Your task to perform on an android device: turn off notifications in google photos Image 0: 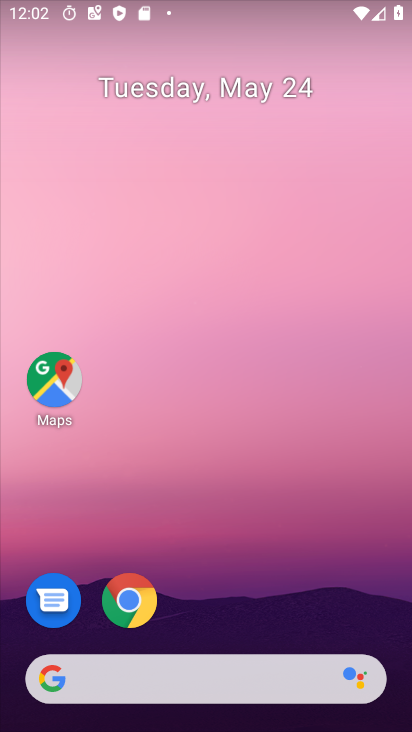
Step 0: drag from (255, 523) to (296, 97)
Your task to perform on an android device: turn off notifications in google photos Image 1: 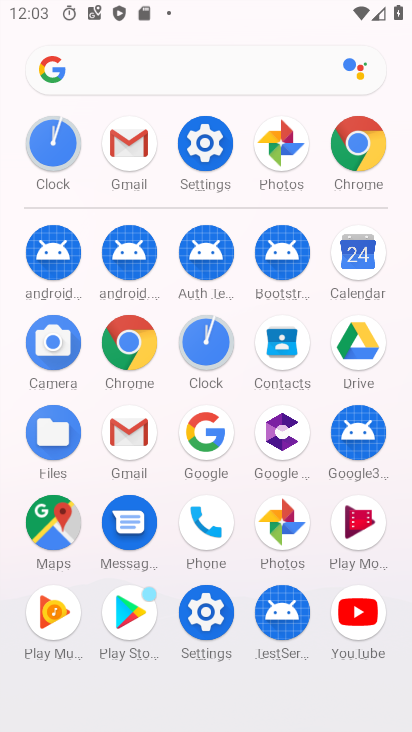
Step 1: click (274, 523)
Your task to perform on an android device: turn off notifications in google photos Image 2: 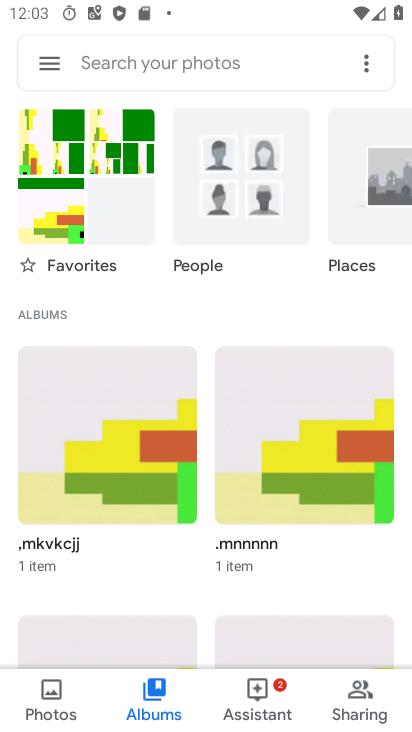
Step 2: click (52, 60)
Your task to perform on an android device: turn off notifications in google photos Image 3: 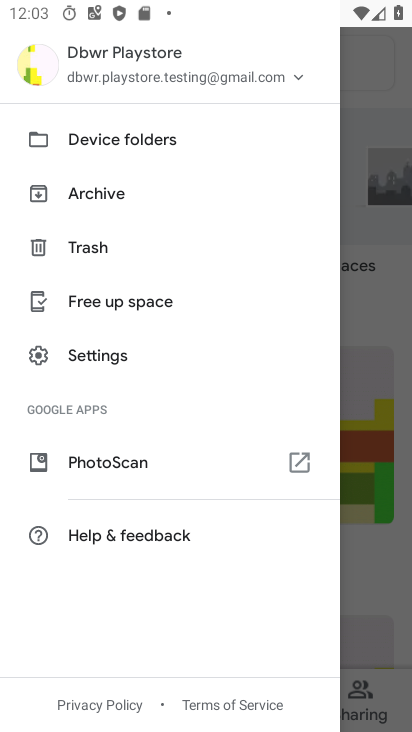
Step 3: click (96, 365)
Your task to perform on an android device: turn off notifications in google photos Image 4: 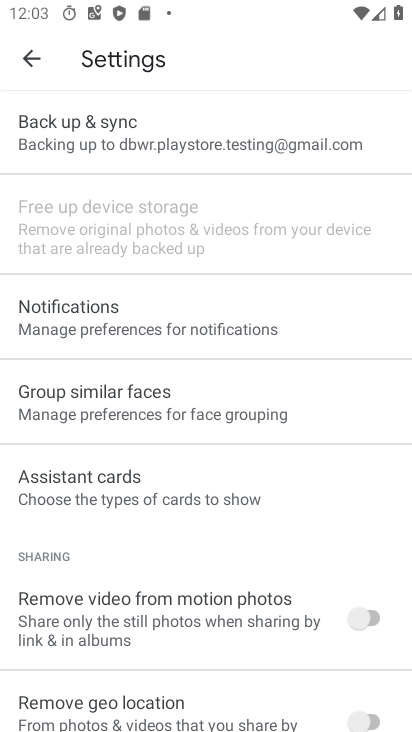
Step 4: drag from (209, 485) to (262, 218)
Your task to perform on an android device: turn off notifications in google photos Image 5: 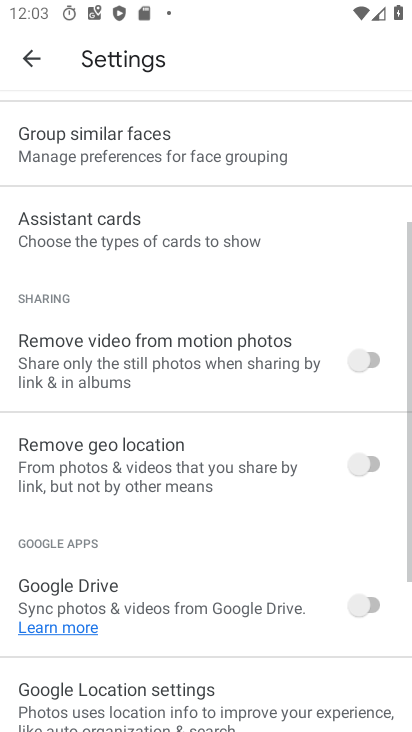
Step 5: drag from (257, 205) to (229, 552)
Your task to perform on an android device: turn off notifications in google photos Image 6: 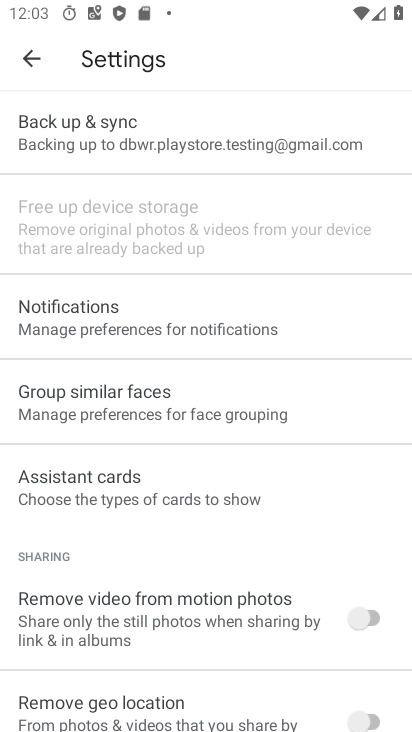
Step 6: click (180, 336)
Your task to perform on an android device: turn off notifications in google photos Image 7: 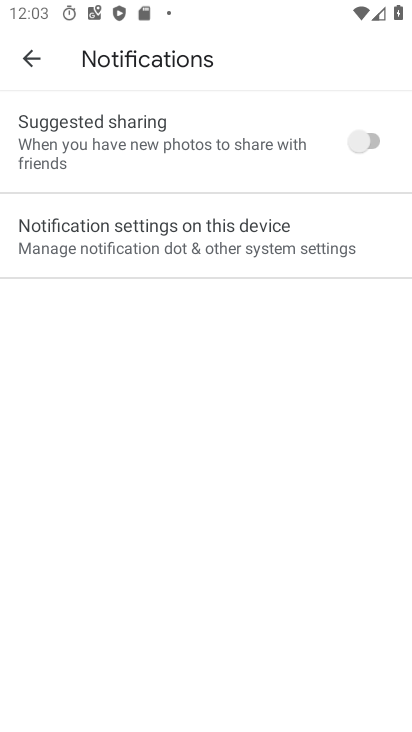
Step 7: click (214, 240)
Your task to perform on an android device: turn off notifications in google photos Image 8: 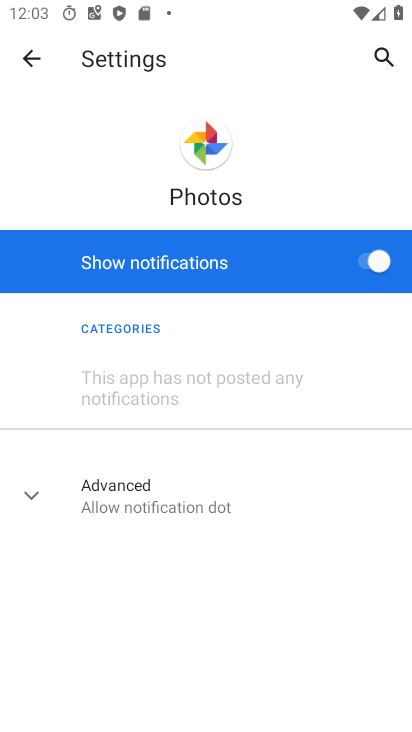
Step 8: click (352, 257)
Your task to perform on an android device: turn off notifications in google photos Image 9: 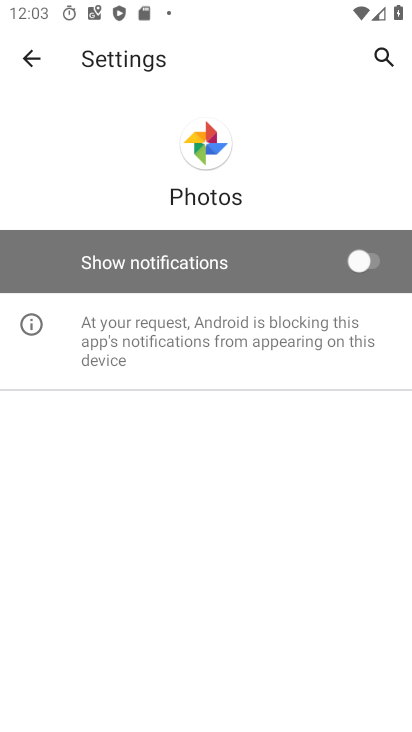
Step 9: task complete